Your task to perform on an android device: turn off sleep mode Image 0: 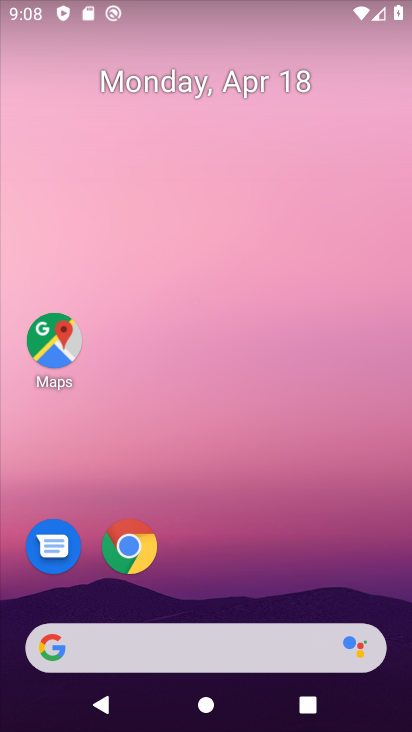
Step 0: drag from (337, 4) to (308, 424)
Your task to perform on an android device: turn off sleep mode Image 1: 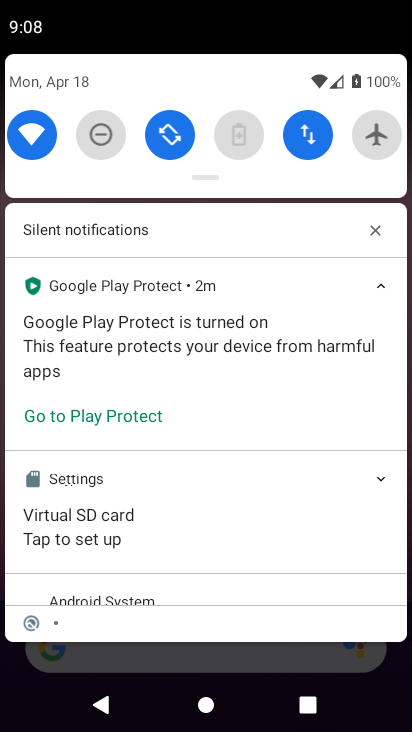
Step 1: drag from (203, 166) to (193, 505)
Your task to perform on an android device: turn off sleep mode Image 2: 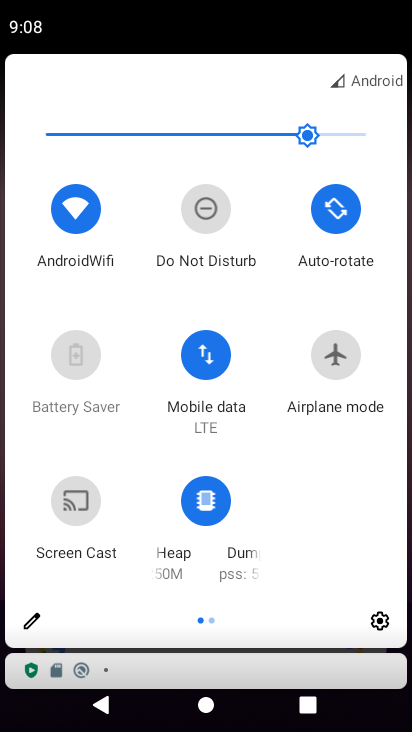
Step 2: click (37, 621)
Your task to perform on an android device: turn off sleep mode Image 3: 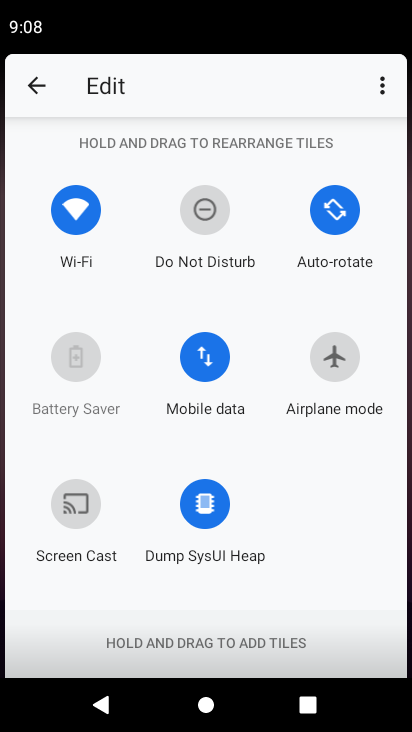
Step 3: drag from (303, 588) to (261, 220)
Your task to perform on an android device: turn off sleep mode Image 4: 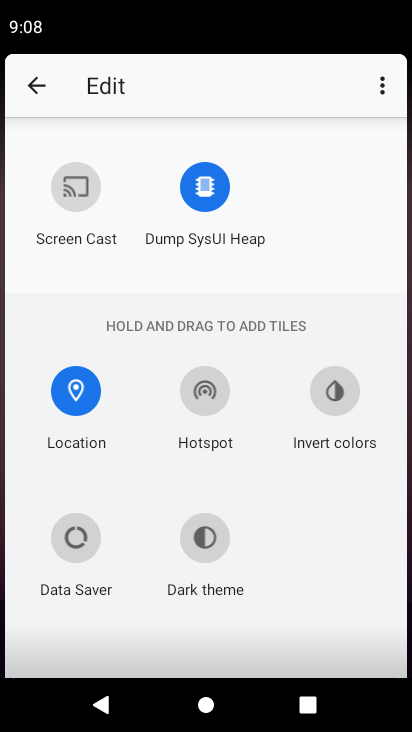
Step 4: click (87, 698)
Your task to perform on an android device: turn off sleep mode Image 5: 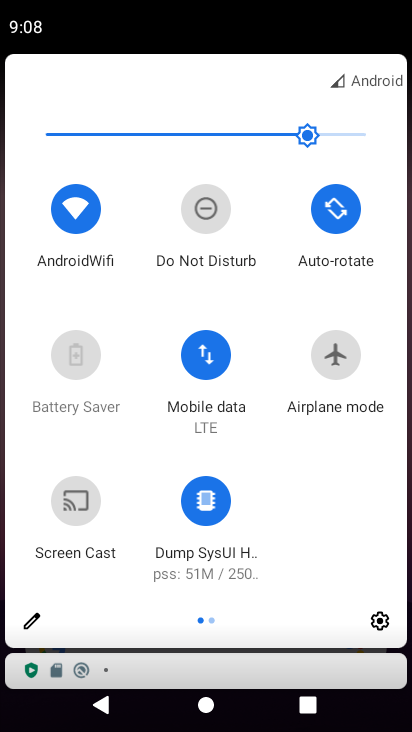
Step 5: click (92, 706)
Your task to perform on an android device: turn off sleep mode Image 6: 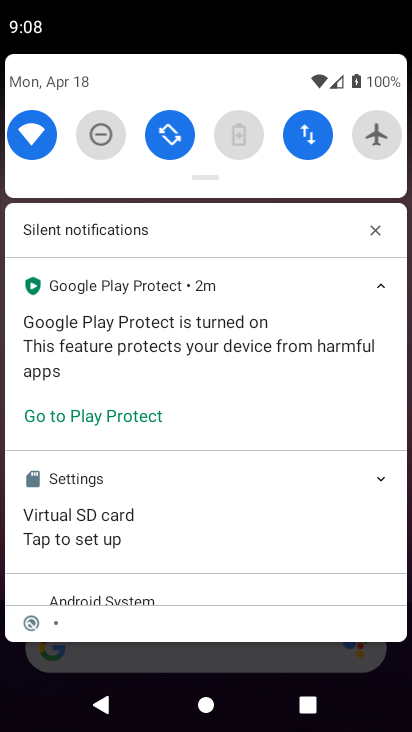
Step 6: click (105, 701)
Your task to perform on an android device: turn off sleep mode Image 7: 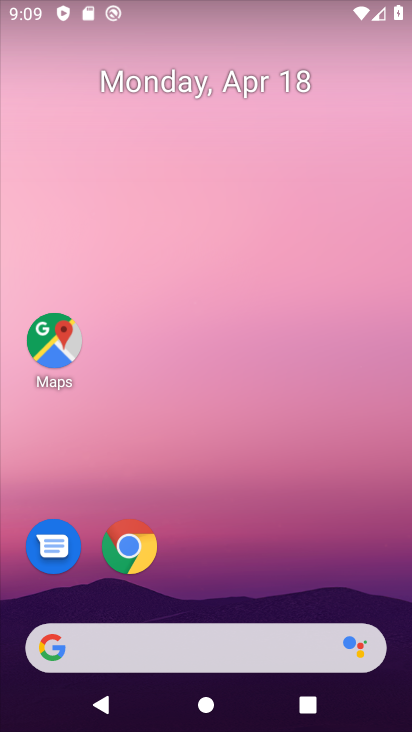
Step 7: task complete